Your task to perform on an android device: Open Chrome and go to the settings page Image 0: 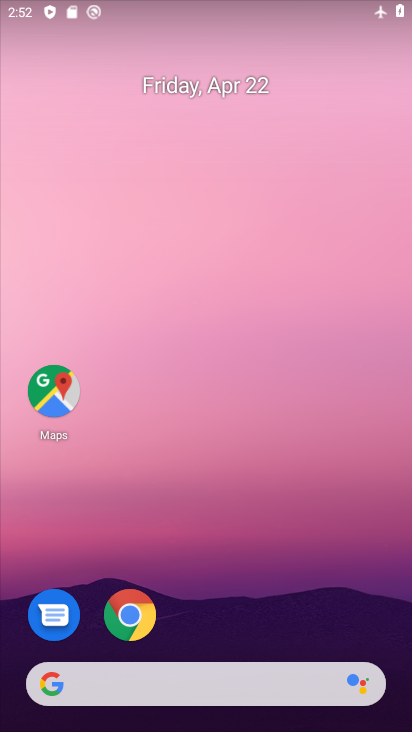
Step 0: click (147, 614)
Your task to perform on an android device: Open Chrome and go to the settings page Image 1: 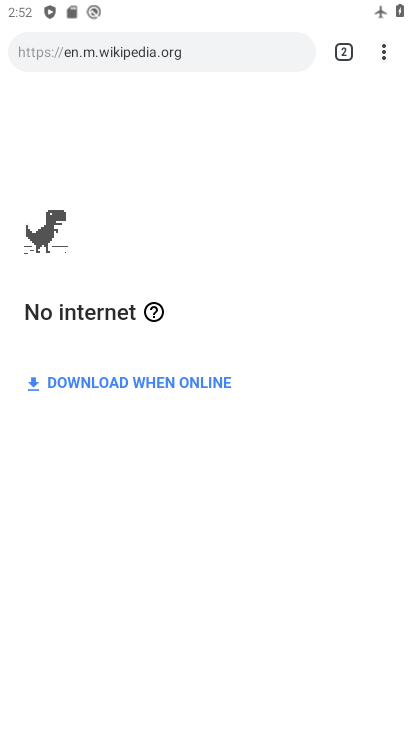
Step 1: click (381, 69)
Your task to perform on an android device: Open Chrome and go to the settings page Image 2: 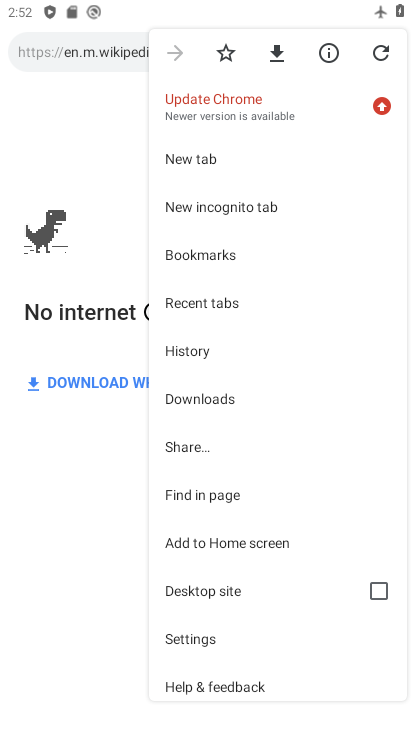
Step 2: click (253, 632)
Your task to perform on an android device: Open Chrome and go to the settings page Image 3: 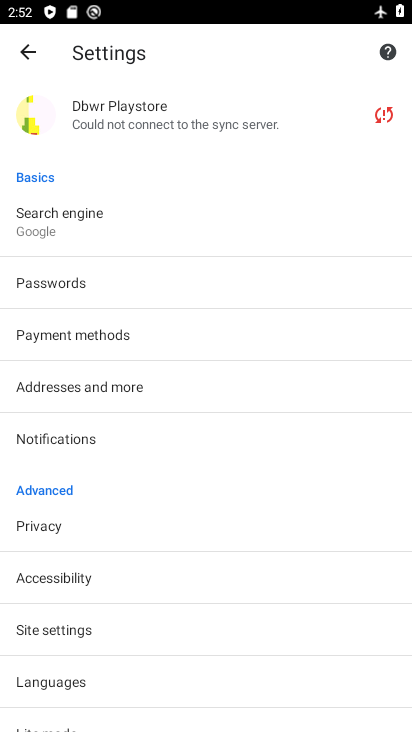
Step 3: task complete